Your task to perform on an android device: change alarm snooze length Image 0: 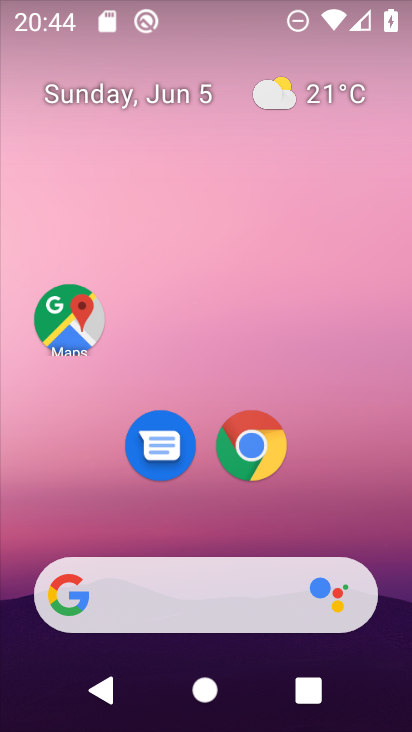
Step 0: drag from (389, 476) to (343, 106)
Your task to perform on an android device: change alarm snooze length Image 1: 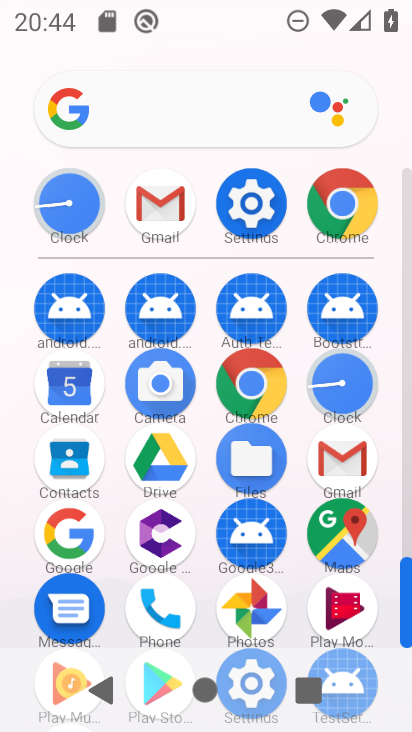
Step 1: click (231, 195)
Your task to perform on an android device: change alarm snooze length Image 2: 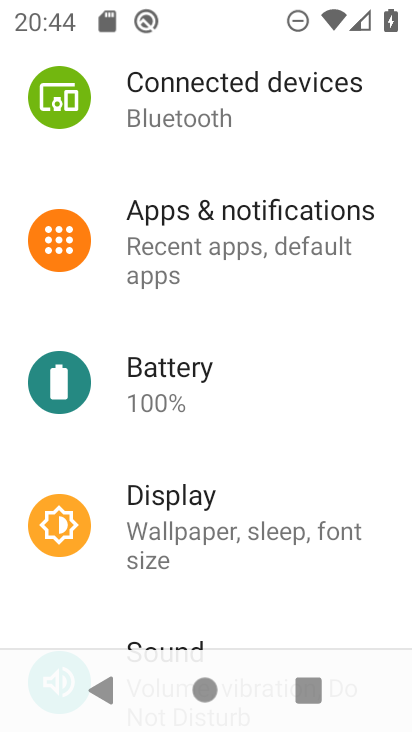
Step 2: press home button
Your task to perform on an android device: change alarm snooze length Image 3: 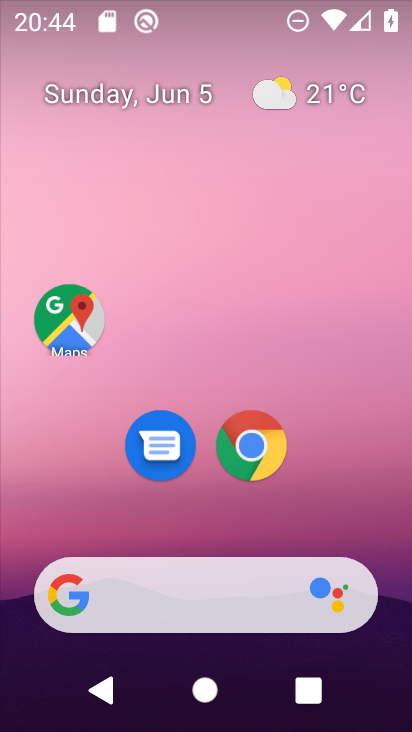
Step 3: drag from (368, 530) to (323, 112)
Your task to perform on an android device: change alarm snooze length Image 4: 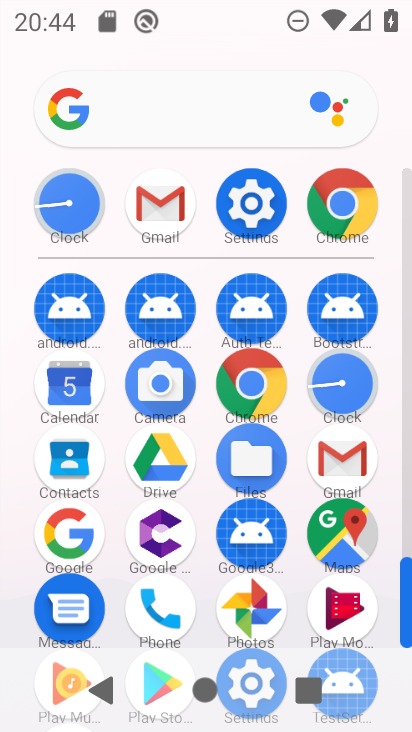
Step 4: click (76, 219)
Your task to perform on an android device: change alarm snooze length Image 5: 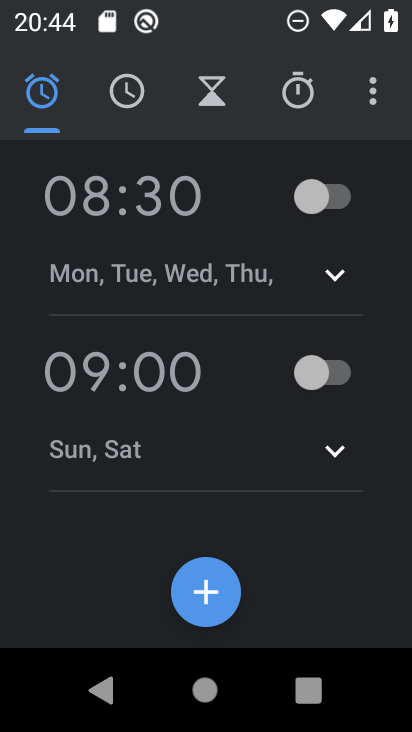
Step 5: click (377, 82)
Your task to perform on an android device: change alarm snooze length Image 6: 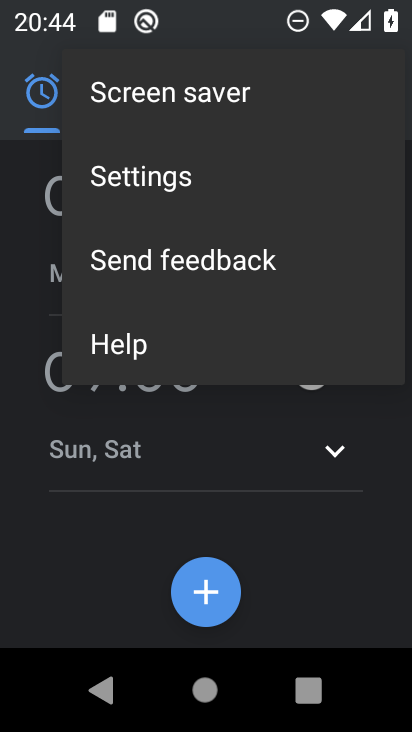
Step 6: click (208, 173)
Your task to perform on an android device: change alarm snooze length Image 7: 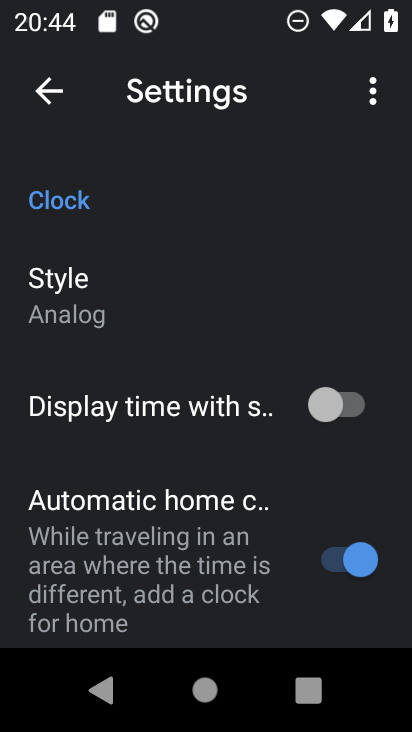
Step 7: drag from (15, 589) to (69, 152)
Your task to perform on an android device: change alarm snooze length Image 8: 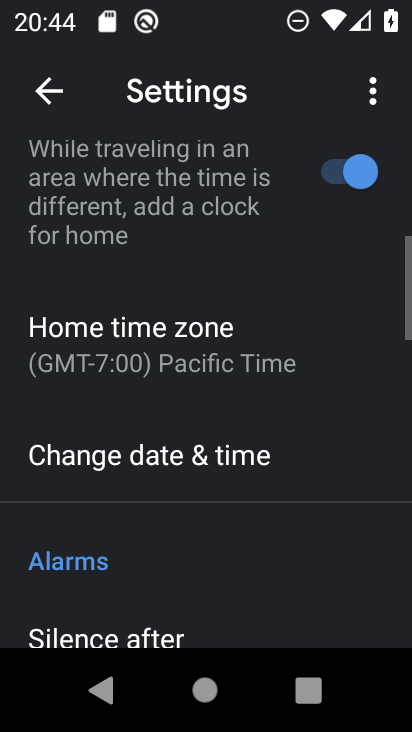
Step 8: click (149, 449)
Your task to perform on an android device: change alarm snooze length Image 9: 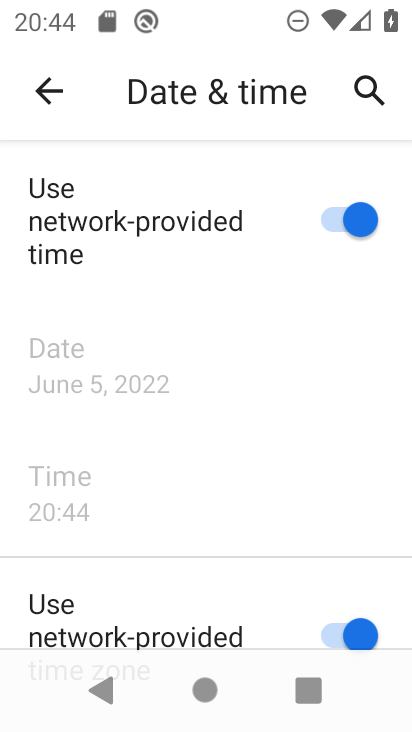
Step 9: drag from (160, 536) to (169, 141)
Your task to perform on an android device: change alarm snooze length Image 10: 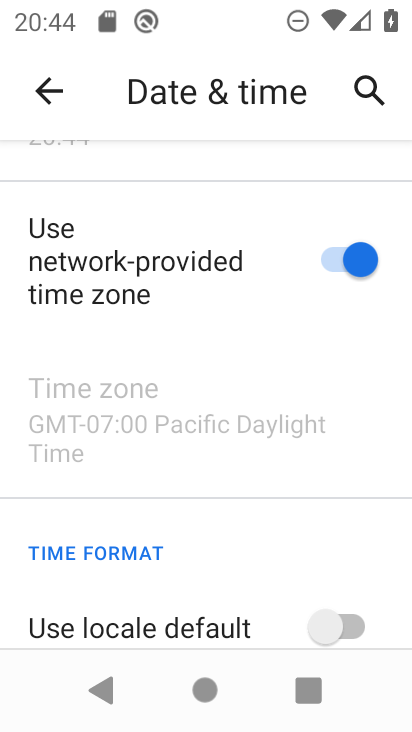
Step 10: drag from (218, 497) to (243, 188)
Your task to perform on an android device: change alarm snooze length Image 11: 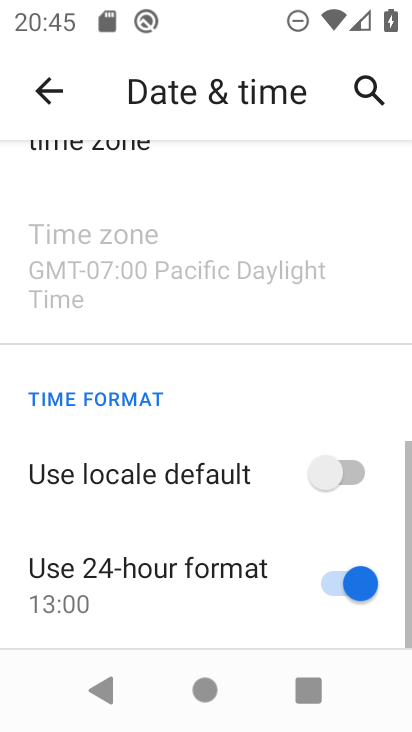
Step 11: drag from (186, 216) to (199, 413)
Your task to perform on an android device: change alarm snooze length Image 12: 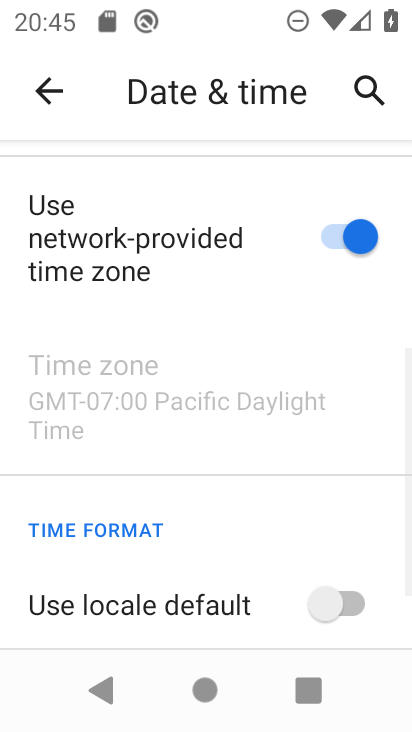
Step 12: click (55, 91)
Your task to perform on an android device: change alarm snooze length Image 13: 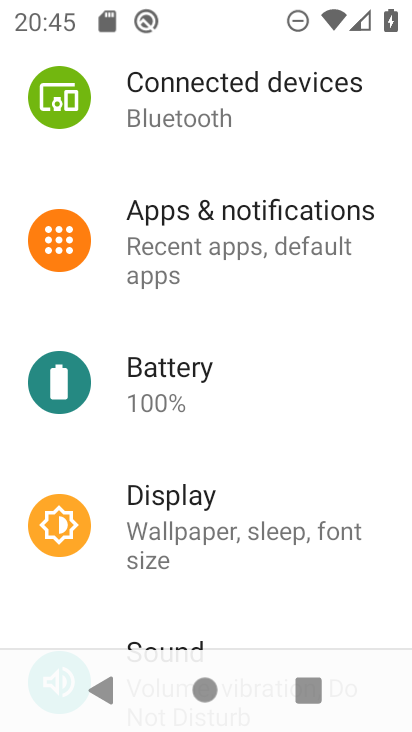
Step 13: press home button
Your task to perform on an android device: change alarm snooze length Image 14: 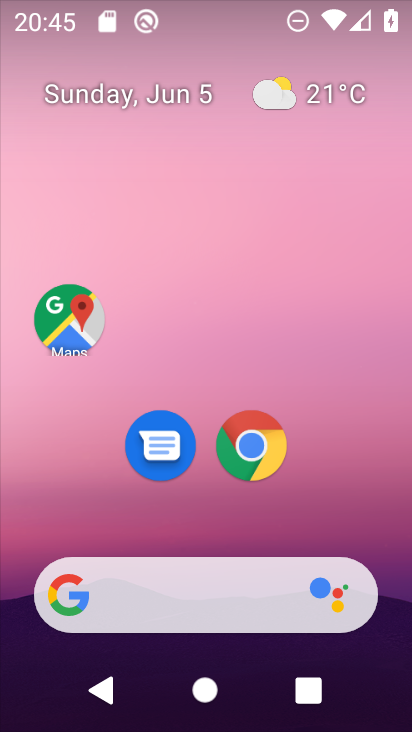
Step 14: drag from (239, 323) to (193, 0)
Your task to perform on an android device: change alarm snooze length Image 15: 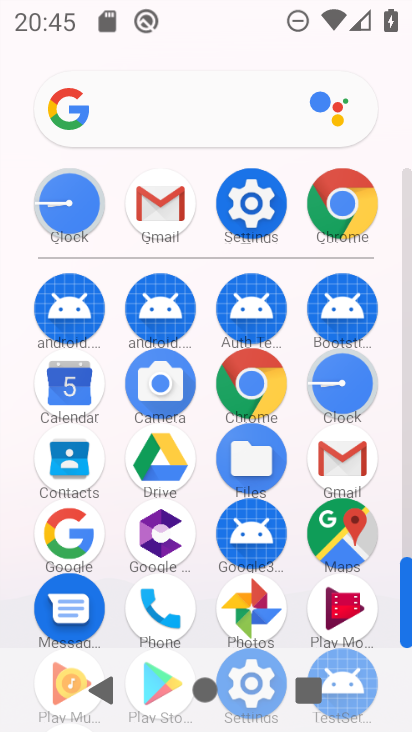
Step 15: click (70, 200)
Your task to perform on an android device: change alarm snooze length Image 16: 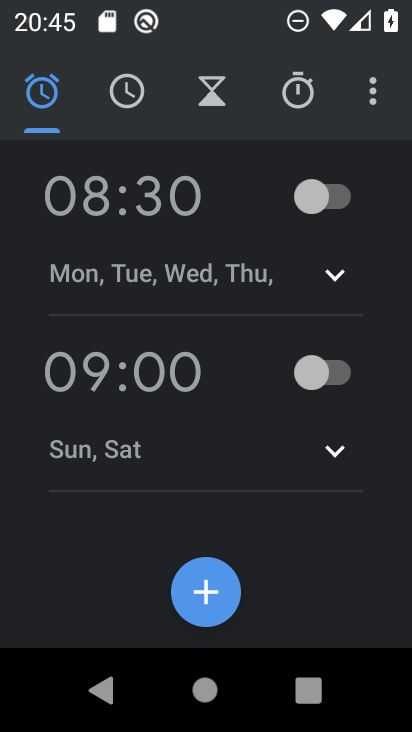
Step 16: click (370, 88)
Your task to perform on an android device: change alarm snooze length Image 17: 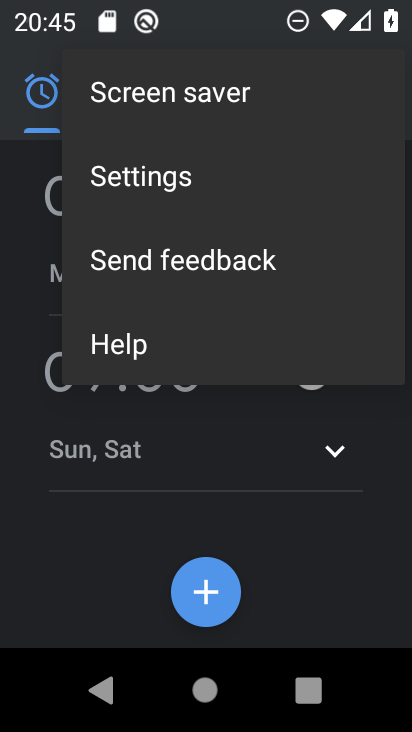
Step 17: click (144, 184)
Your task to perform on an android device: change alarm snooze length Image 18: 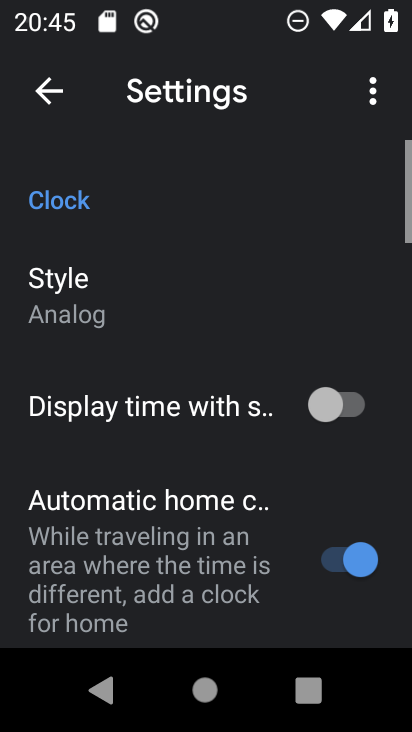
Step 18: drag from (138, 512) to (161, 92)
Your task to perform on an android device: change alarm snooze length Image 19: 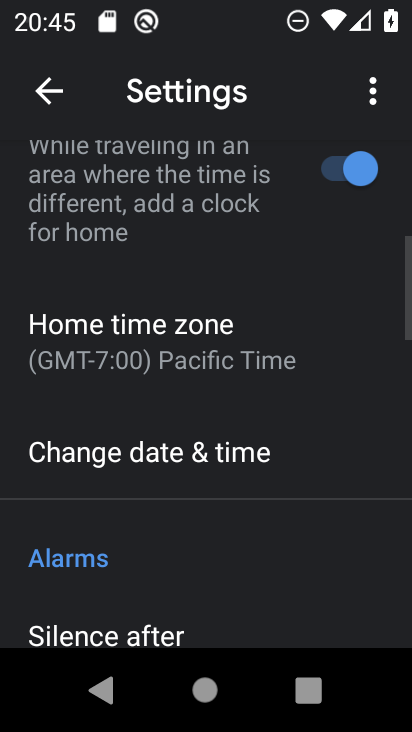
Step 19: drag from (171, 536) to (168, 169)
Your task to perform on an android device: change alarm snooze length Image 20: 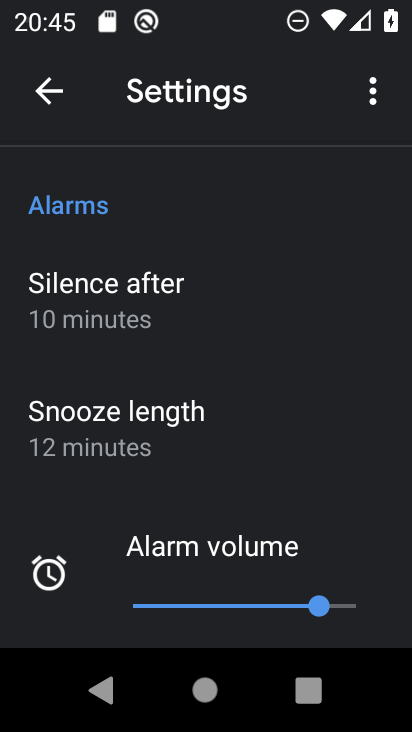
Step 20: click (165, 403)
Your task to perform on an android device: change alarm snooze length Image 21: 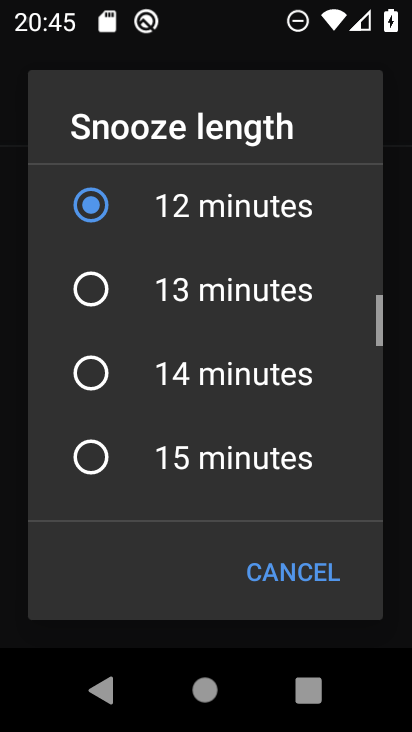
Step 21: click (220, 376)
Your task to perform on an android device: change alarm snooze length Image 22: 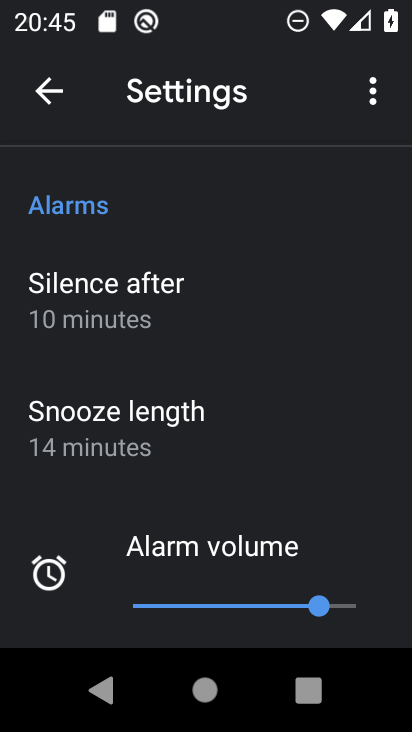
Step 22: press home button
Your task to perform on an android device: change alarm snooze length Image 23: 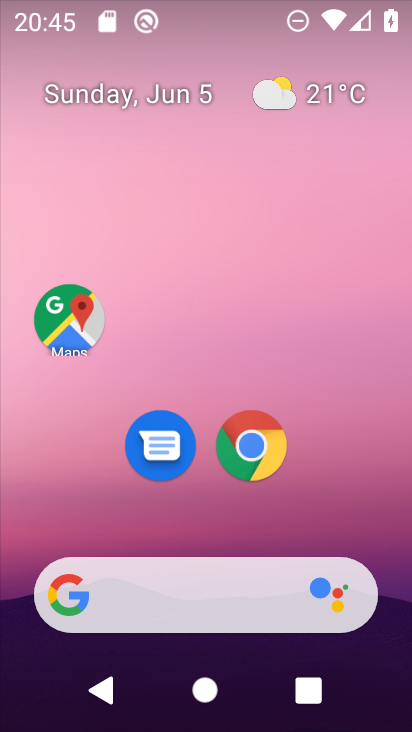
Step 23: press home button
Your task to perform on an android device: change alarm snooze length Image 24: 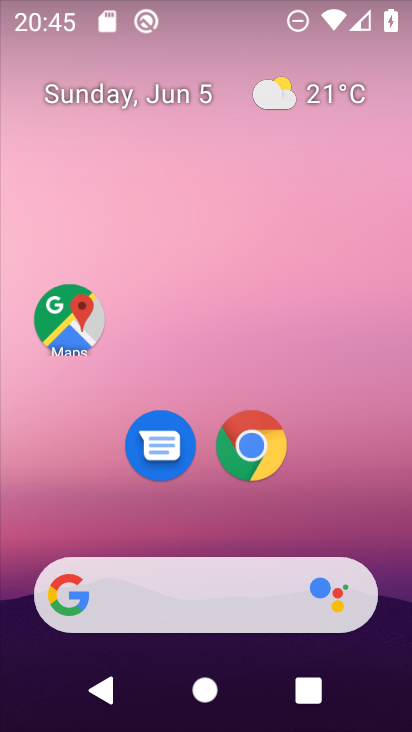
Step 24: drag from (372, 469) to (342, 99)
Your task to perform on an android device: change alarm snooze length Image 25: 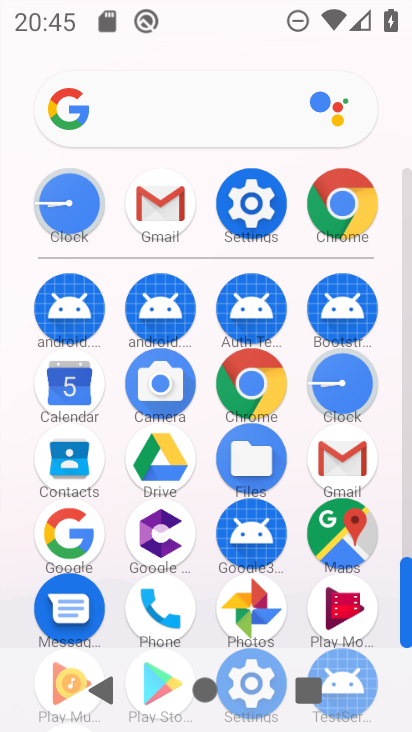
Step 25: click (76, 198)
Your task to perform on an android device: change alarm snooze length Image 26: 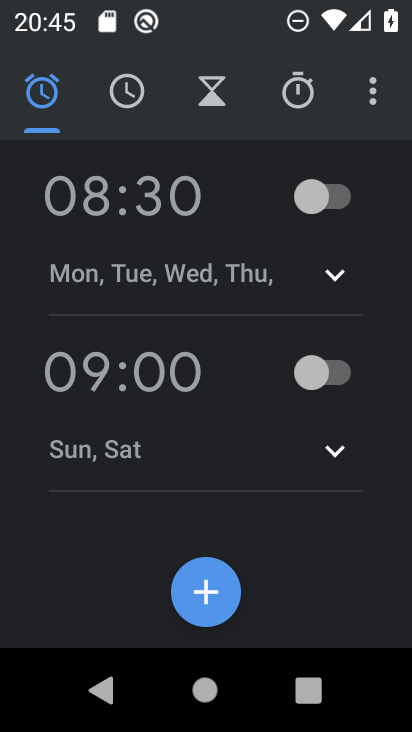
Step 26: click (373, 97)
Your task to perform on an android device: change alarm snooze length Image 27: 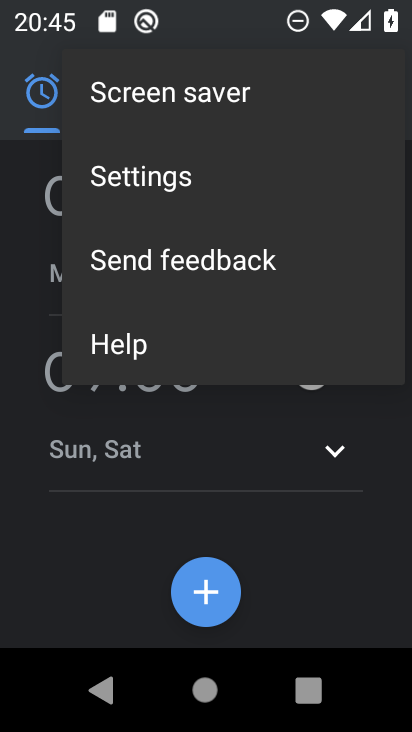
Step 27: click (135, 190)
Your task to perform on an android device: change alarm snooze length Image 28: 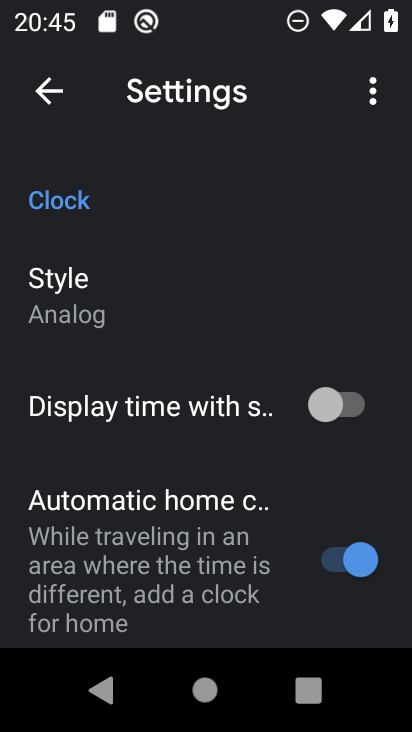
Step 28: drag from (14, 625) to (55, 112)
Your task to perform on an android device: change alarm snooze length Image 29: 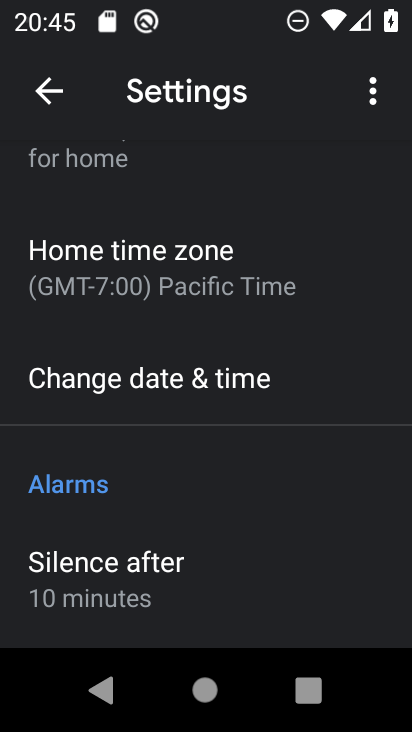
Step 29: drag from (313, 507) to (288, 231)
Your task to perform on an android device: change alarm snooze length Image 30: 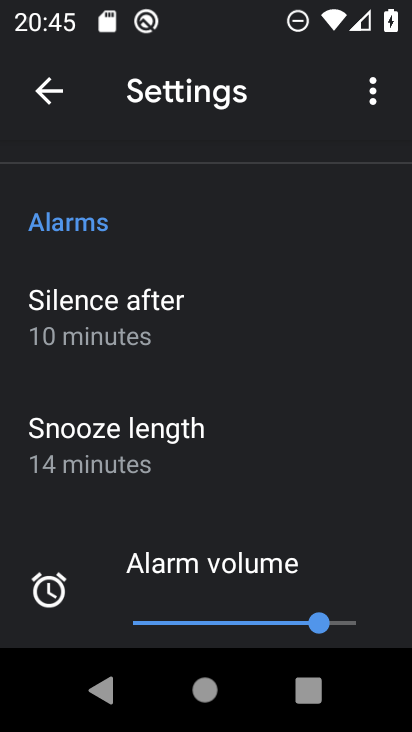
Step 30: click (197, 434)
Your task to perform on an android device: change alarm snooze length Image 31: 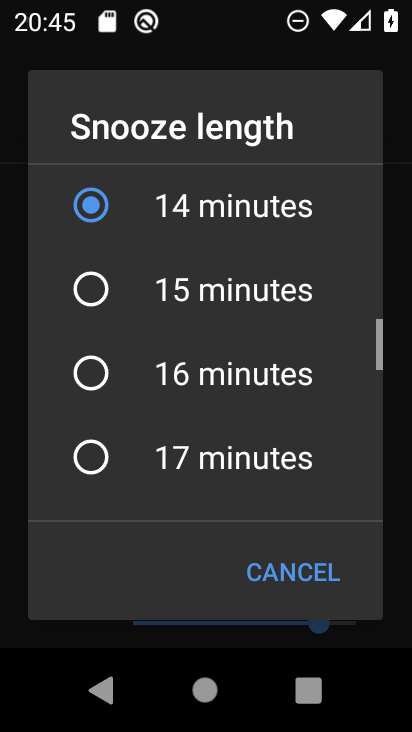
Step 31: click (172, 294)
Your task to perform on an android device: change alarm snooze length Image 32: 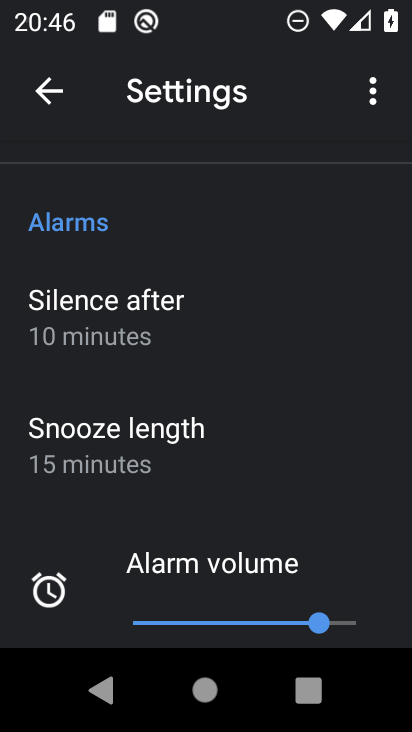
Step 32: task complete